Your task to perform on an android device: open a bookmark in the chrome app Image 0: 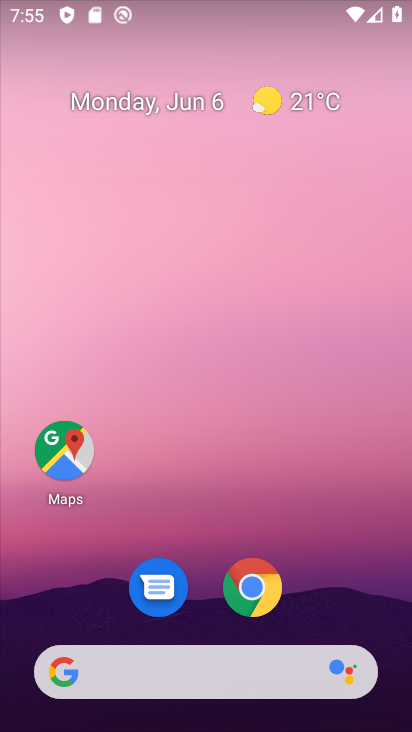
Step 0: click (267, 614)
Your task to perform on an android device: open a bookmark in the chrome app Image 1: 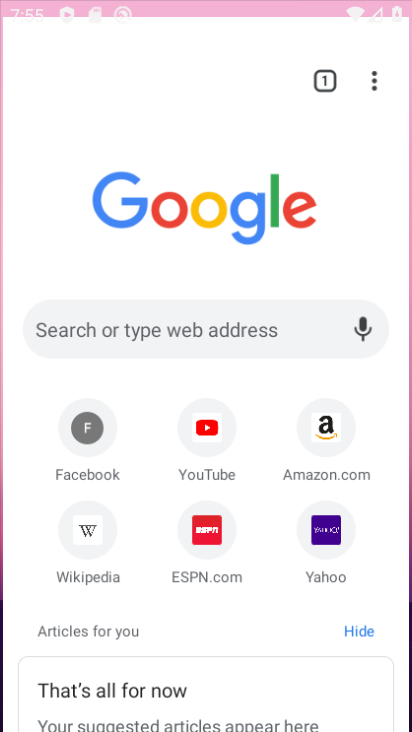
Step 1: click (267, 614)
Your task to perform on an android device: open a bookmark in the chrome app Image 2: 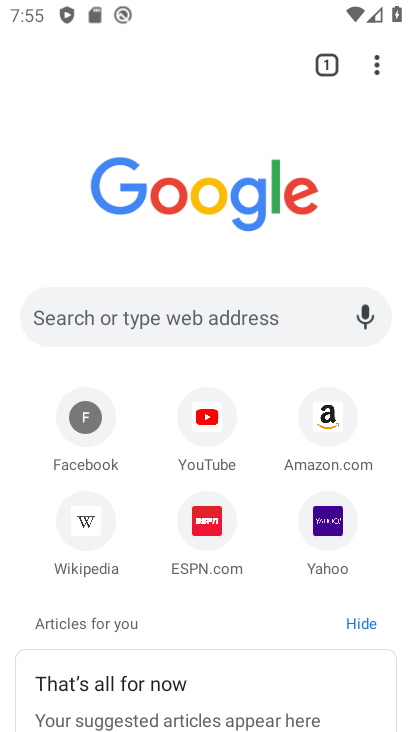
Step 2: click (267, 614)
Your task to perform on an android device: open a bookmark in the chrome app Image 3: 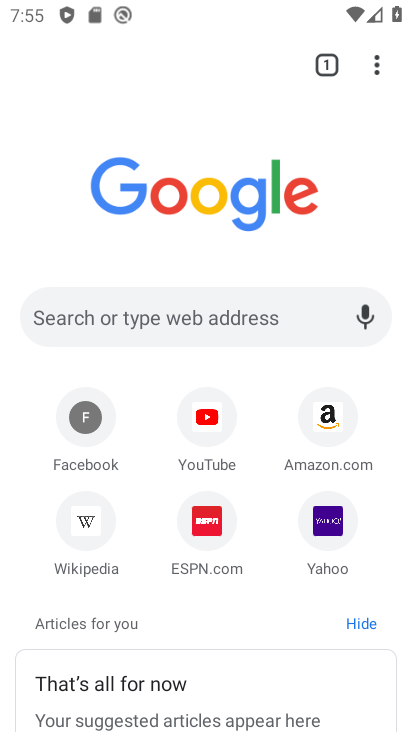
Step 3: click (376, 68)
Your task to perform on an android device: open a bookmark in the chrome app Image 4: 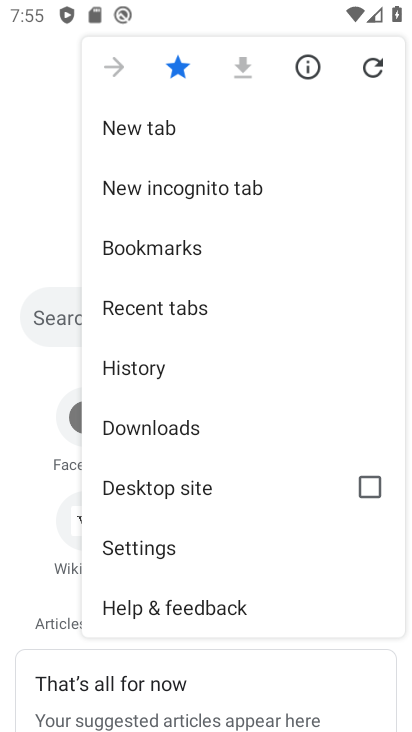
Step 4: click (136, 260)
Your task to perform on an android device: open a bookmark in the chrome app Image 5: 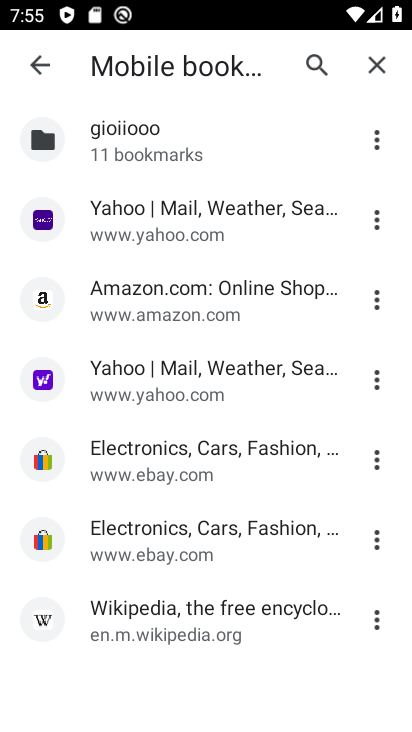
Step 5: click (196, 299)
Your task to perform on an android device: open a bookmark in the chrome app Image 6: 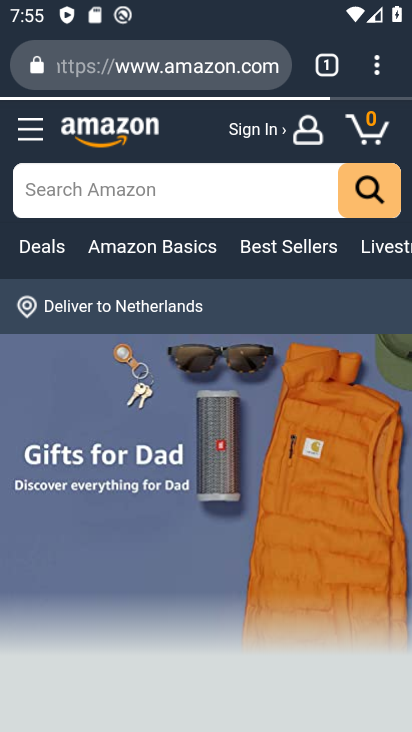
Step 6: task complete